Your task to perform on an android device: turn on notifications settings in the gmail app Image 0: 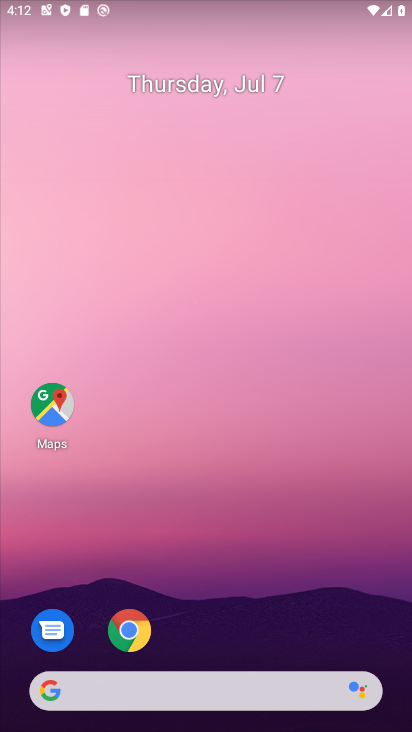
Step 0: click (311, 570)
Your task to perform on an android device: turn on notifications settings in the gmail app Image 1: 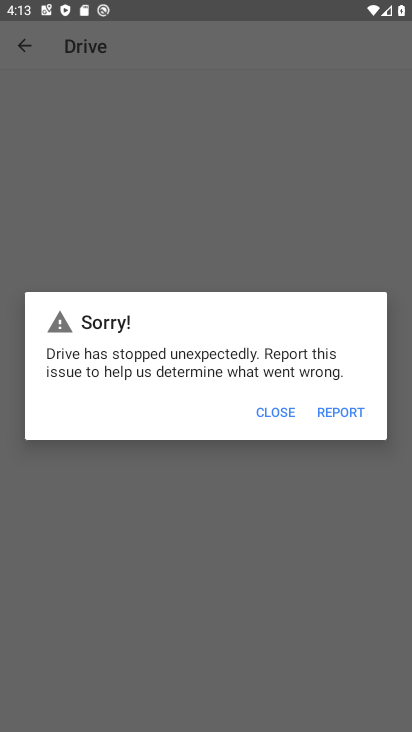
Step 1: drag from (177, 3) to (298, 588)
Your task to perform on an android device: turn on notifications settings in the gmail app Image 2: 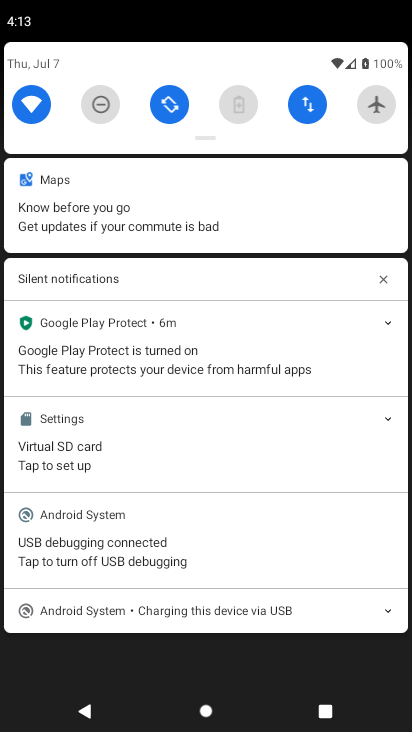
Step 2: drag from (111, 67) to (185, 508)
Your task to perform on an android device: turn on notifications settings in the gmail app Image 3: 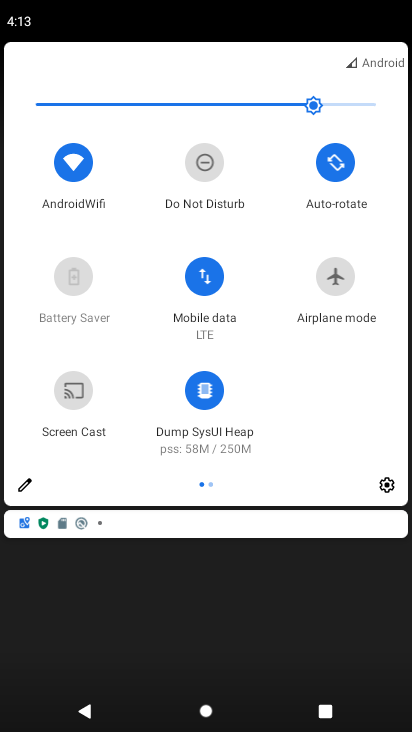
Step 3: click (384, 491)
Your task to perform on an android device: turn on notifications settings in the gmail app Image 4: 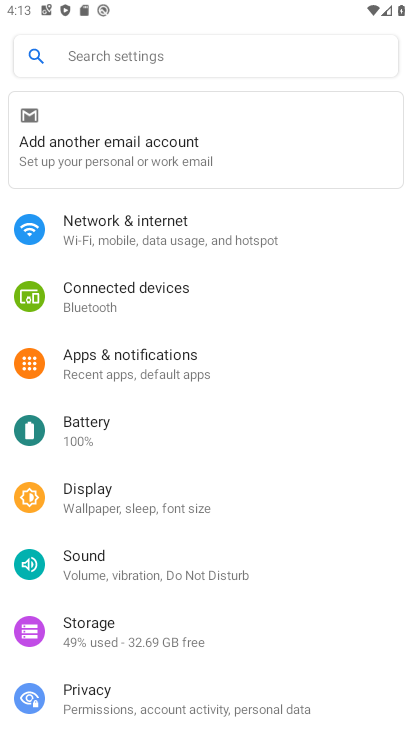
Step 4: click (185, 371)
Your task to perform on an android device: turn on notifications settings in the gmail app Image 5: 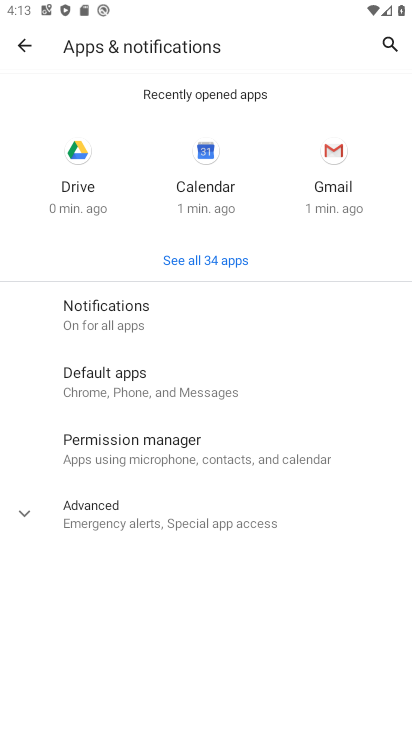
Step 5: click (143, 324)
Your task to perform on an android device: turn on notifications settings in the gmail app Image 6: 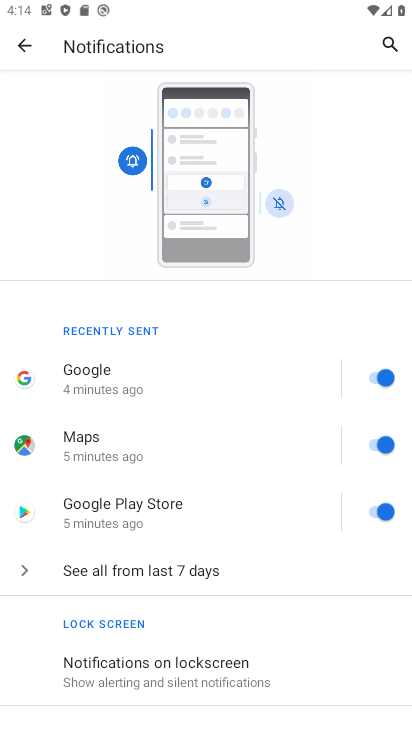
Step 6: click (143, 324)
Your task to perform on an android device: turn on notifications settings in the gmail app Image 7: 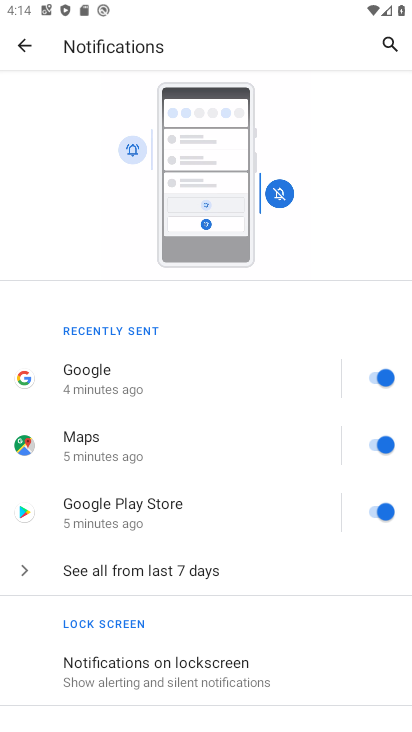
Step 7: drag from (81, 666) to (182, 287)
Your task to perform on an android device: turn on notifications settings in the gmail app Image 8: 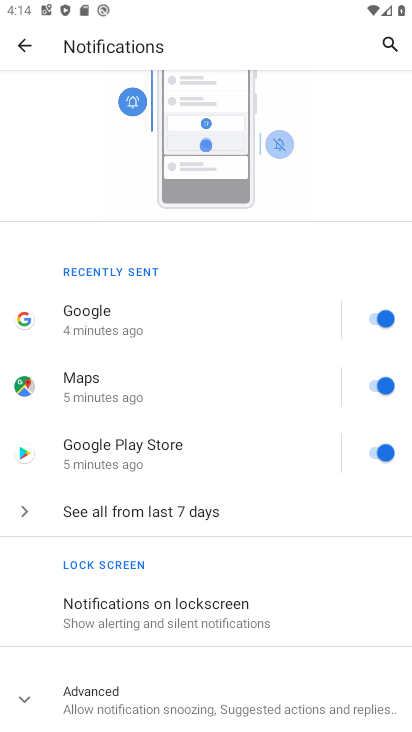
Step 8: drag from (75, 113) to (170, 575)
Your task to perform on an android device: turn on notifications settings in the gmail app Image 9: 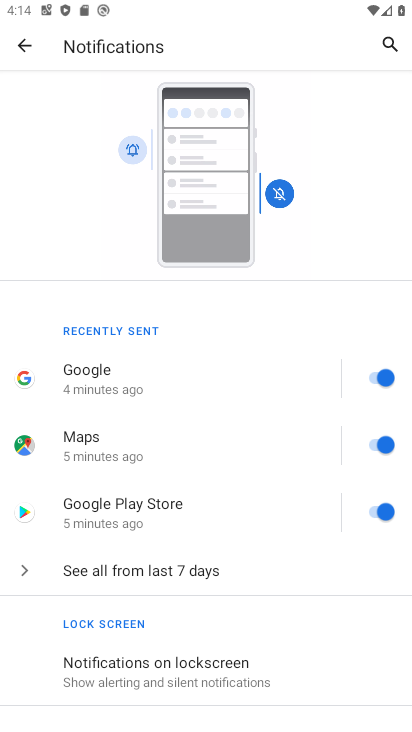
Step 9: drag from (175, 101) to (196, 610)
Your task to perform on an android device: turn on notifications settings in the gmail app Image 10: 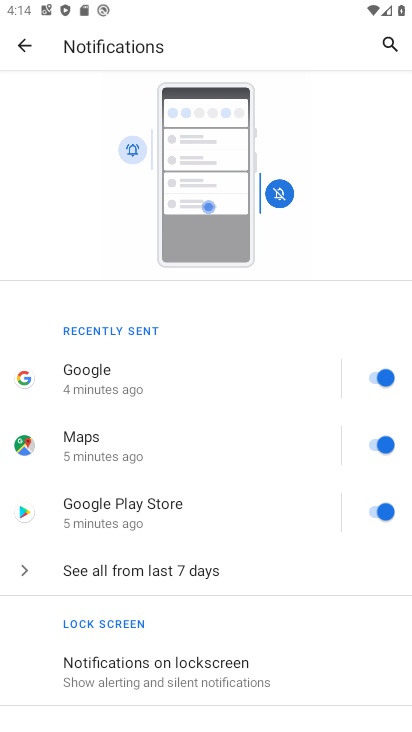
Step 10: click (30, 42)
Your task to perform on an android device: turn on notifications settings in the gmail app Image 11: 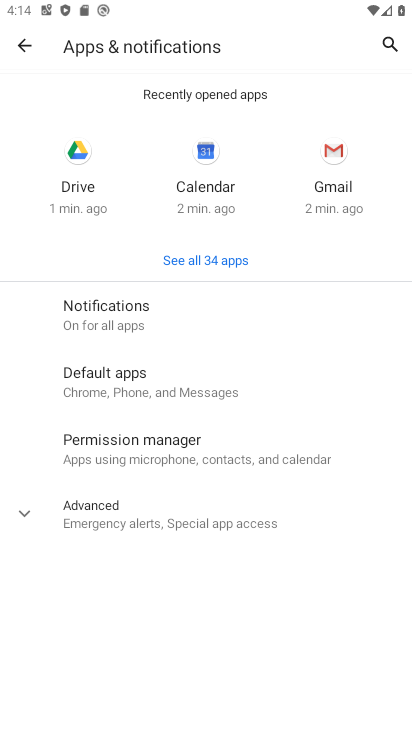
Step 11: click (338, 171)
Your task to perform on an android device: turn on notifications settings in the gmail app Image 12: 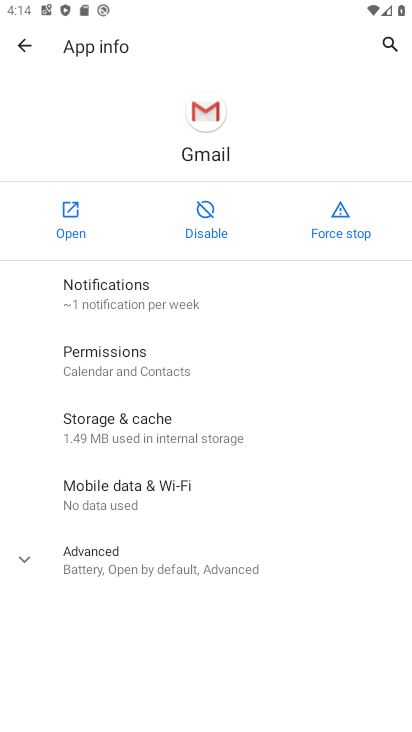
Step 12: click (118, 315)
Your task to perform on an android device: turn on notifications settings in the gmail app Image 13: 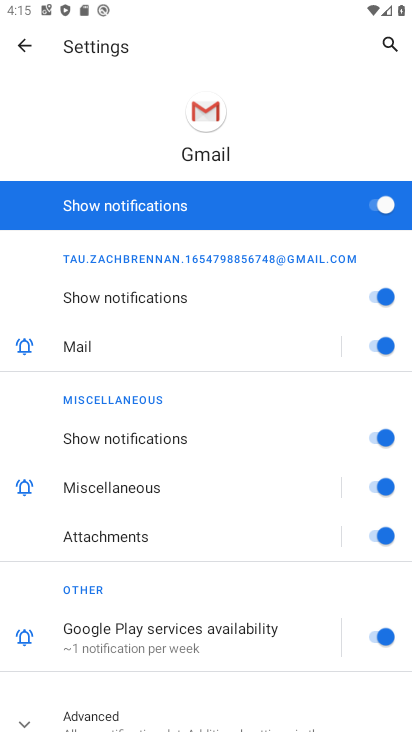
Step 13: task complete